Your task to perform on an android device: toggle notifications settings in the gmail app Image 0: 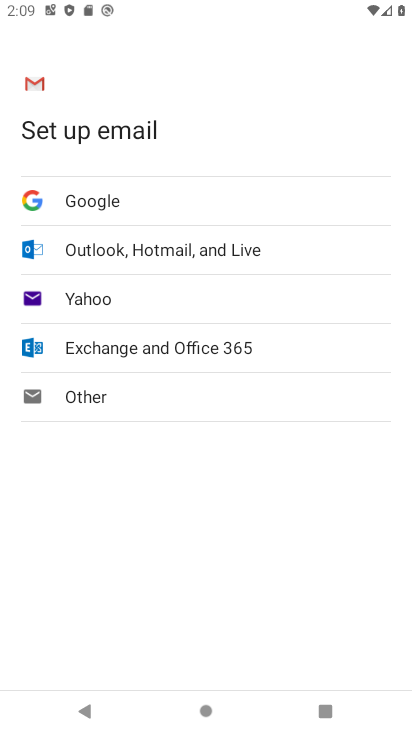
Step 0: press home button
Your task to perform on an android device: toggle notifications settings in the gmail app Image 1: 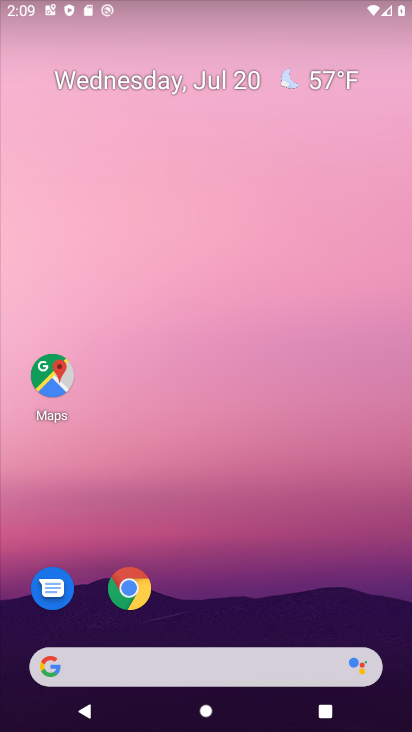
Step 1: drag from (346, 617) to (209, 1)
Your task to perform on an android device: toggle notifications settings in the gmail app Image 2: 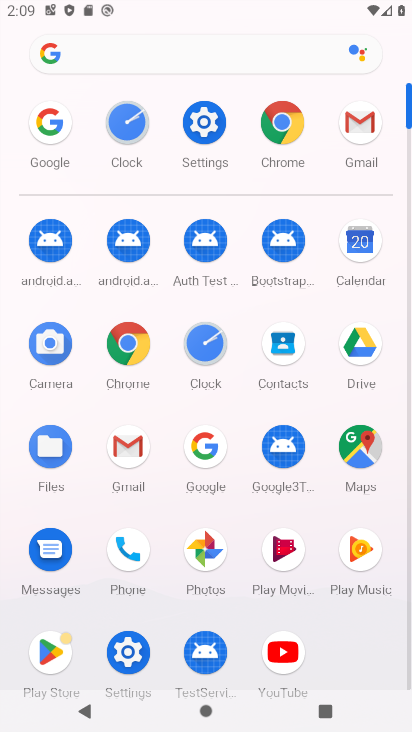
Step 2: click (122, 442)
Your task to perform on an android device: toggle notifications settings in the gmail app Image 3: 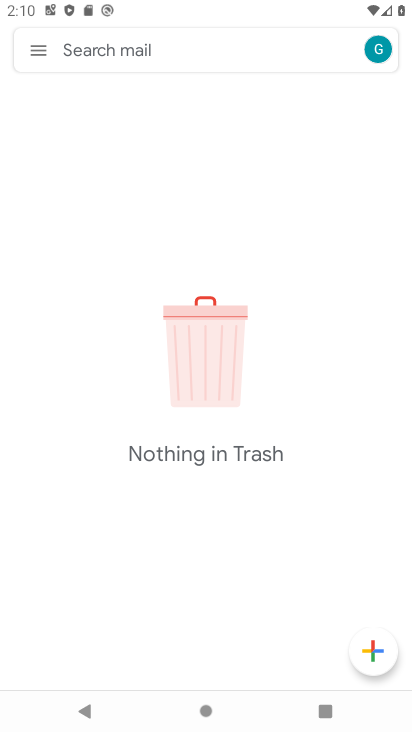
Step 3: click (37, 47)
Your task to perform on an android device: toggle notifications settings in the gmail app Image 4: 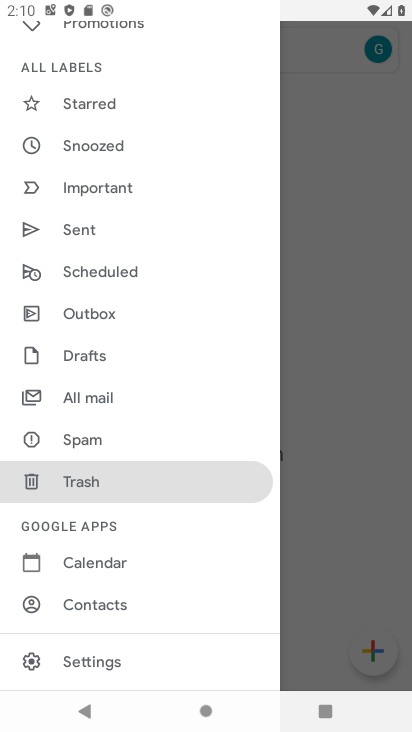
Step 4: click (84, 661)
Your task to perform on an android device: toggle notifications settings in the gmail app Image 5: 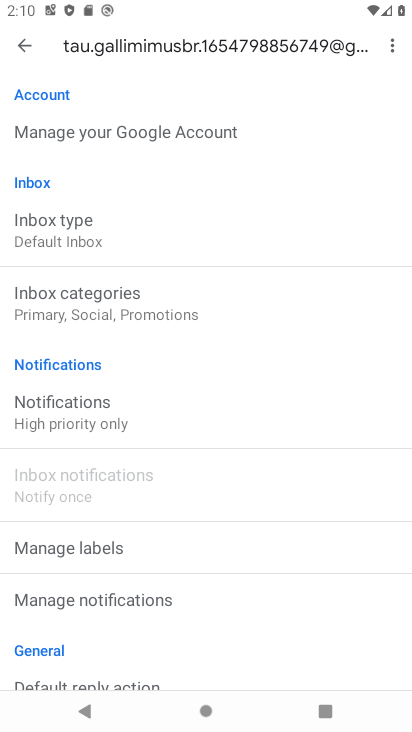
Step 5: click (98, 434)
Your task to perform on an android device: toggle notifications settings in the gmail app Image 6: 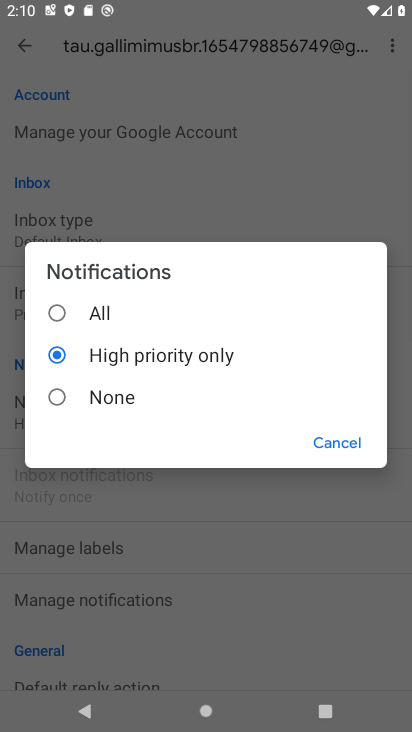
Step 6: click (74, 307)
Your task to perform on an android device: toggle notifications settings in the gmail app Image 7: 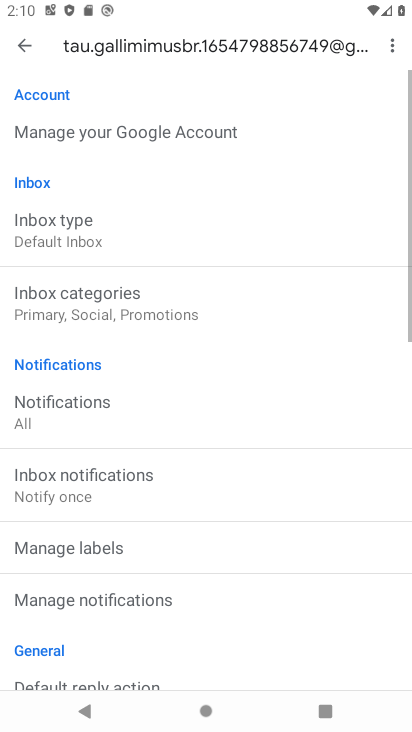
Step 7: task complete